Your task to perform on an android device: open sync settings in chrome Image 0: 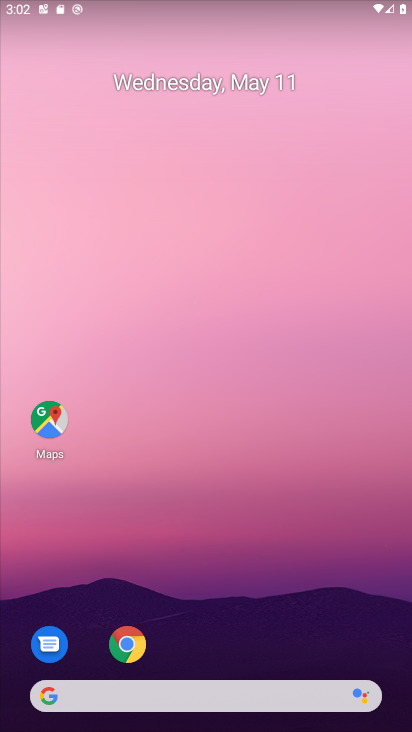
Step 0: click (120, 632)
Your task to perform on an android device: open sync settings in chrome Image 1: 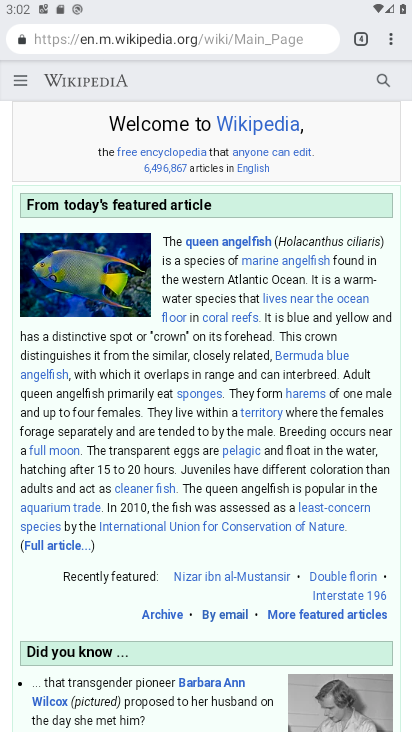
Step 1: click (383, 33)
Your task to perform on an android device: open sync settings in chrome Image 2: 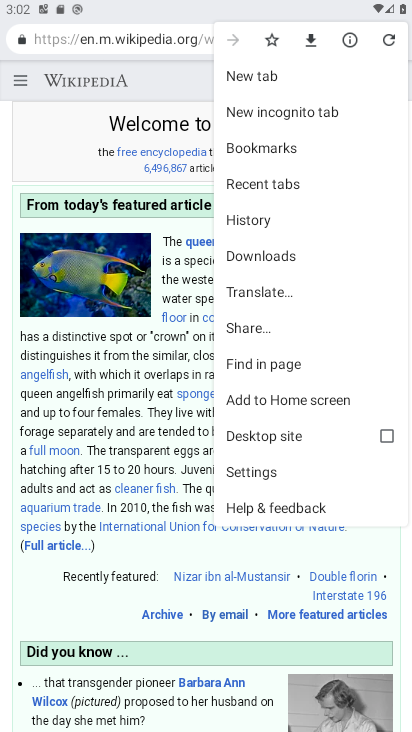
Step 2: click (248, 463)
Your task to perform on an android device: open sync settings in chrome Image 3: 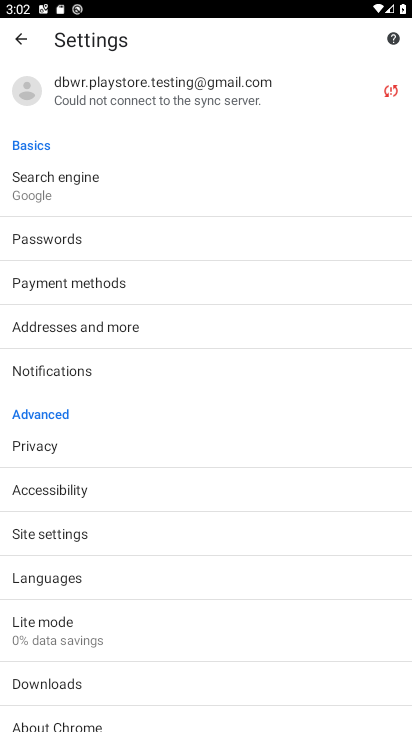
Step 3: drag from (60, 674) to (57, 388)
Your task to perform on an android device: open sync settings in chrome Image 4: 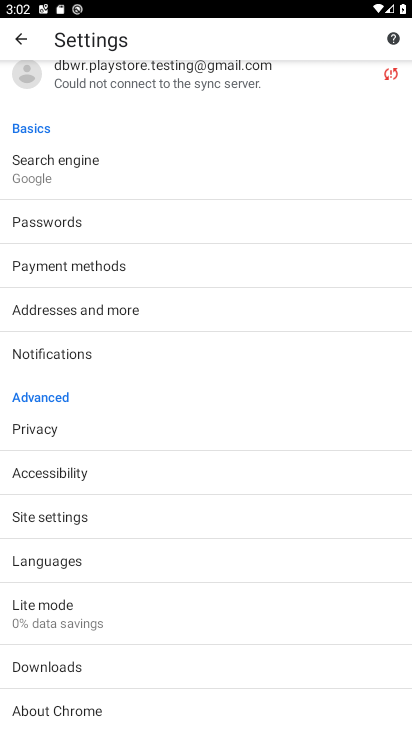
Step 4: click (104, 82)
Your task to perform on an android device: open sync settings in chrome Image 5: 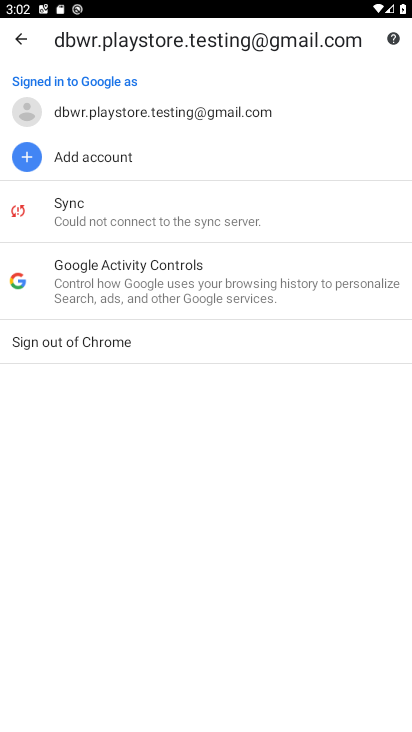
Step 5: task complete